Your task to perform on an android device: change the clock display to digital Image 0: 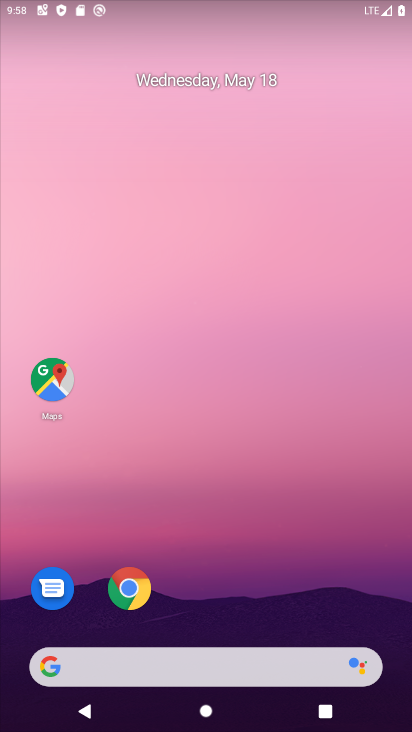
Step 0: drag from (355, 639) to (257, 2)
Your task to perform on an android device: change the clock display to digital Image 1: 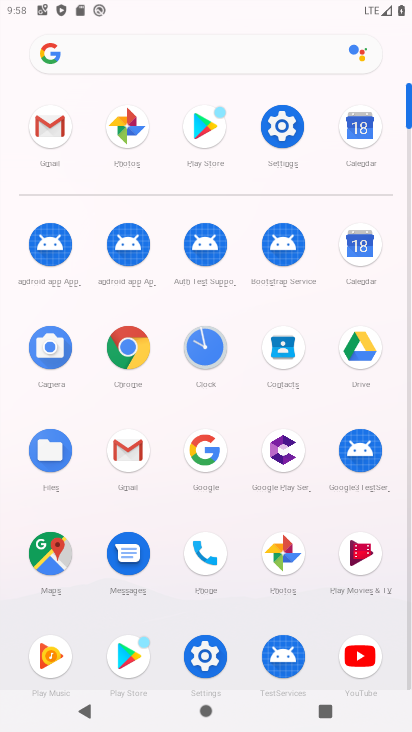
Step 1: click (200, 345)
Your task to perform on an android device: change the clock display to digital Image 2: 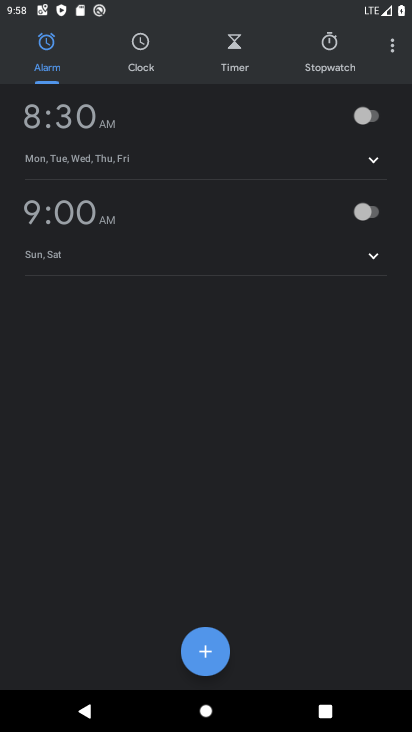
Step 2: click (394, 47)
Your task to perform on an android device: change the clock display to digital Image 3: 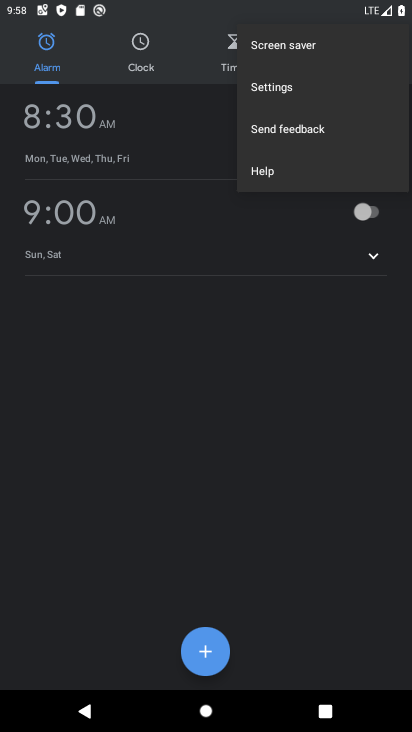
Step 3: click (273, 91)
Your task to perform on an android device: change the clock display to digital Image 4: 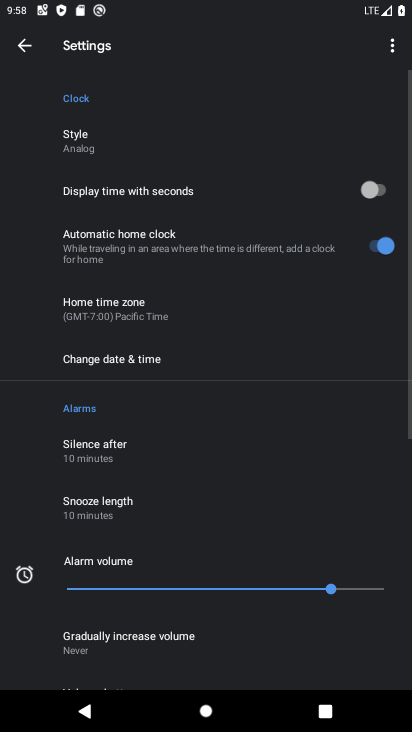
Step 4: click (72, 143)
Your task to perform on an android device: change the clock display to digital Image 5: 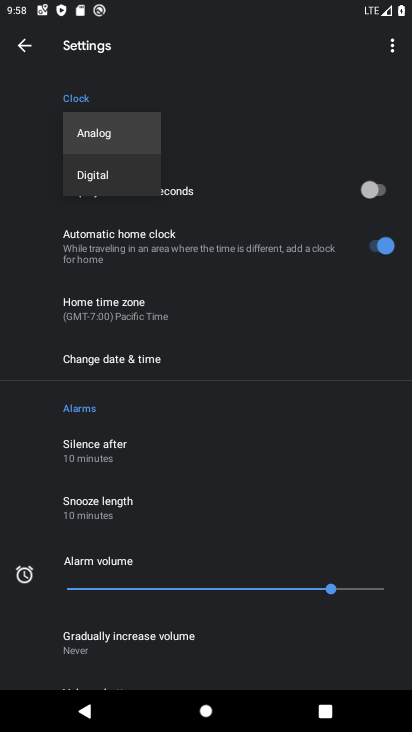
Step 5: click (98, 176)
Your task to perform on an android device: change the clock display to digital Image 6: 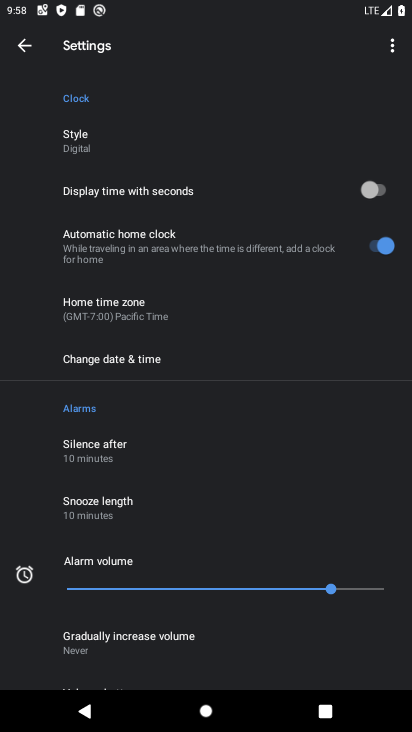
Step 6: task complete